Your task to perform on an android device: check battery use Image 0: 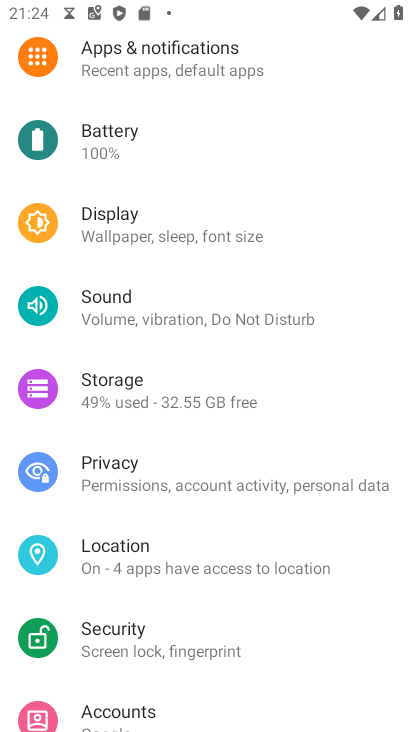
Step 0: press home button
Your task to perform on an android device: check battery use Image 1: 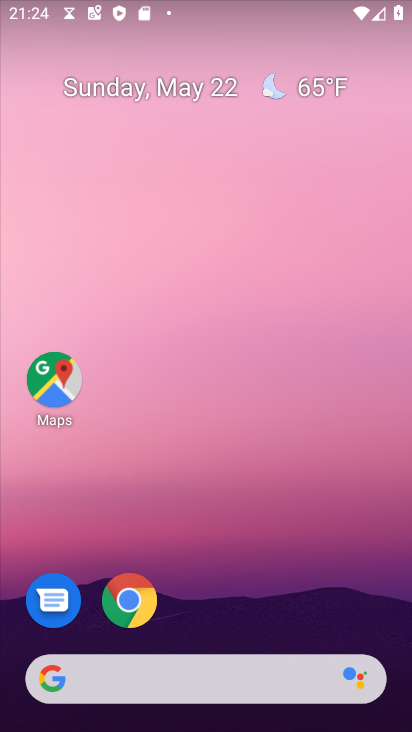
Step 1: drag from (272, 622) to (237, 48)
Your task to perform on an android device: check battery use Image 2: 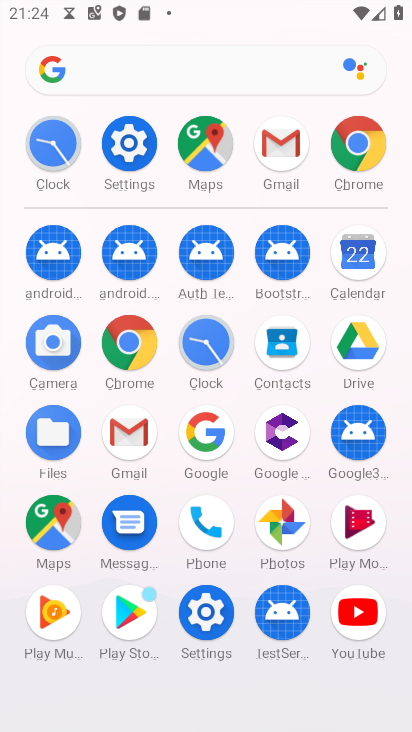
Step 2: click (126, 149)
Your task to perform on an android device: check battery use Image 3: 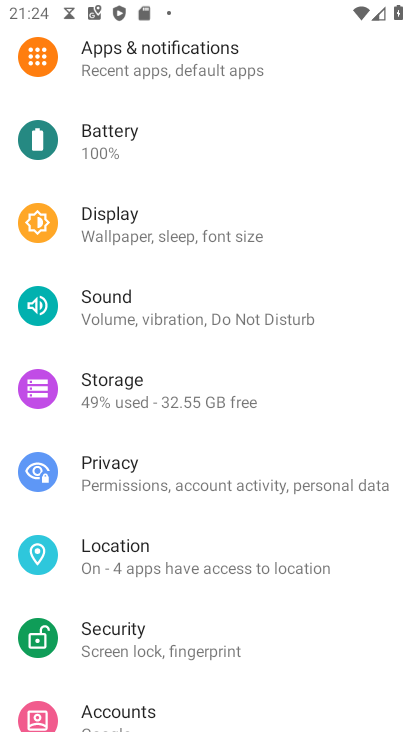
Step 3: click (126, 149)
Your task to perform on an android device: check battery use Image 4: 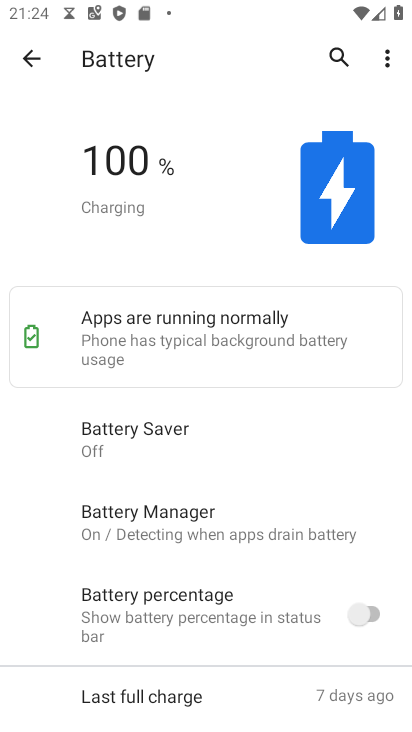
Step 4: task complete